Your task to perform on an android device: open app "Spotify" (install if not already installed) and enter user name: "infallible@icloud.com" and password: "implored" Image 0: 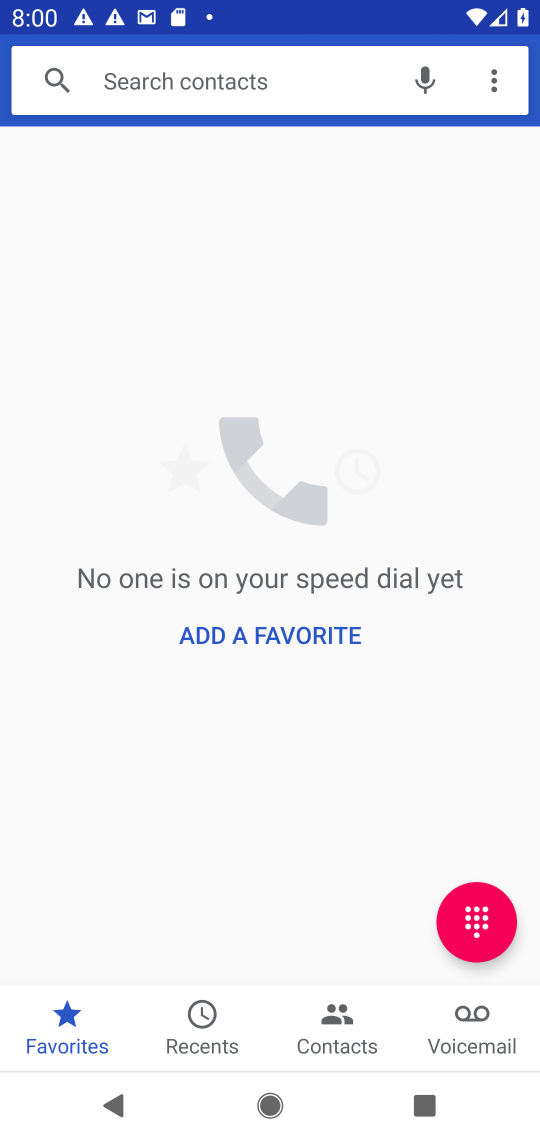
Step 0: press home button
Your task to perform on an android device: open app "Spotify" (install if not already installed) and enter user name: "infallible@icloud.com" and password: "implored" Image 1: 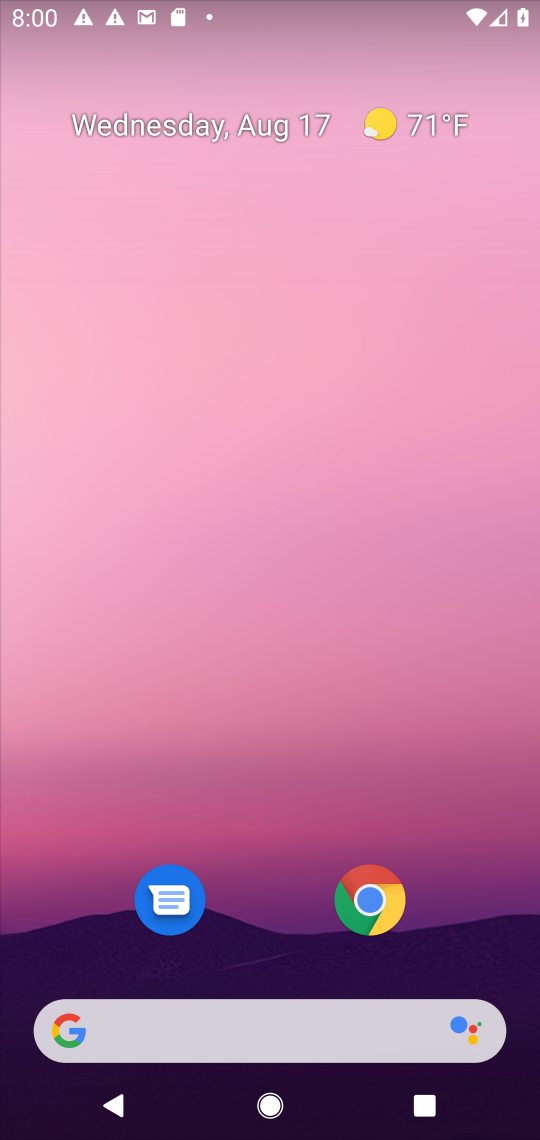
Step 1: drag from (274, 890) to (486, 0)
Your task to perform on an android device: open app "Spotify" (install if not already installed) and enter user name: "infallible@icloud.com" and password: "implored" Image 2: 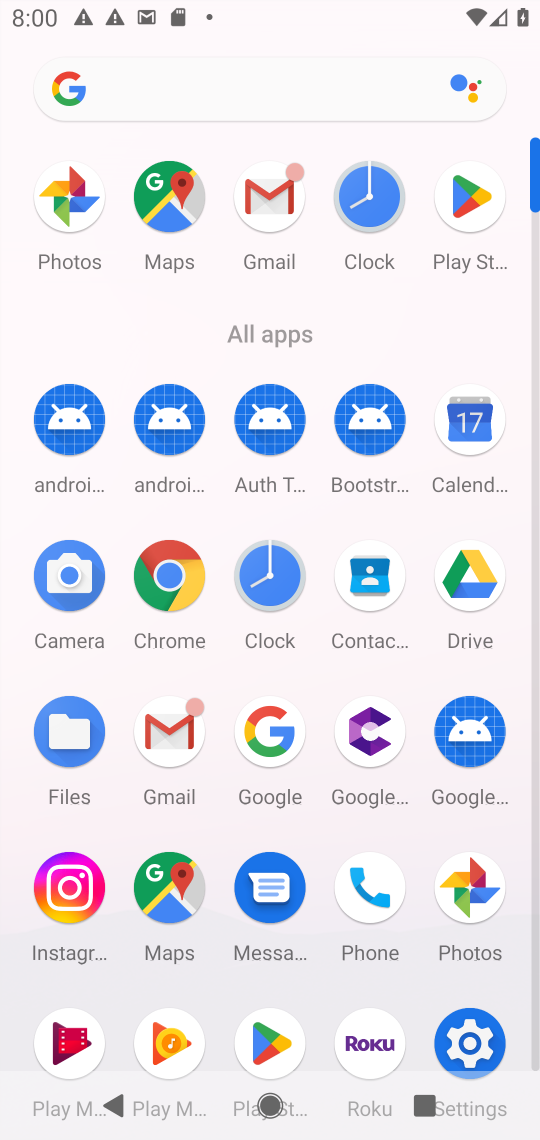
Step 2: click (469, 269)
Your task to perform on an android device: open app "Spotify" (install if not already installed) and enter user name: "infallible@icloud.com" and password: "implored" Image 3: 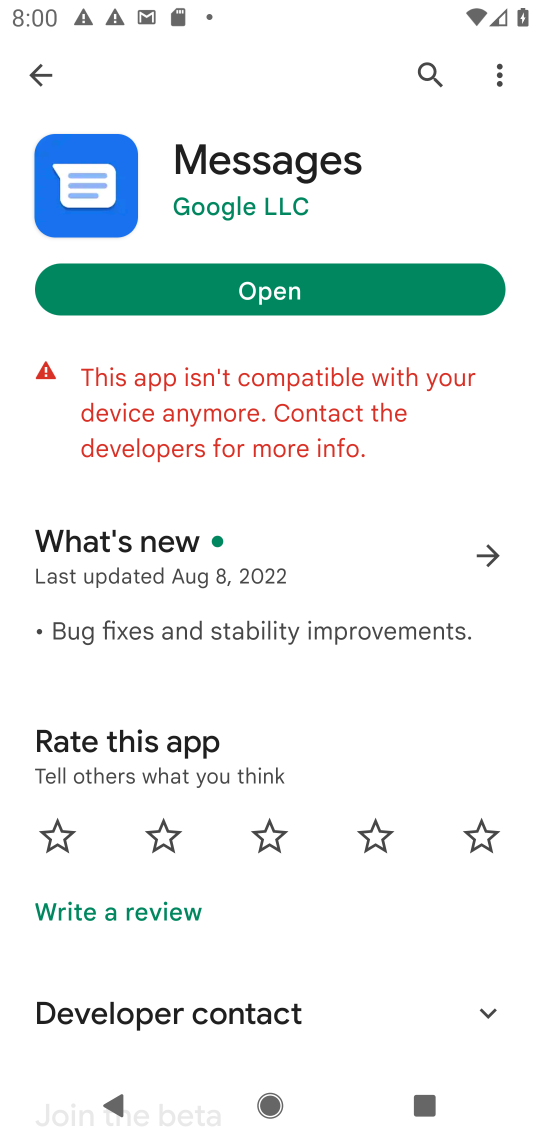
Step 3: click (57, 62)
Your task to perform on an android device: open app "Spotify" (install if not already installed) and enter user name: "infallible@icloud.com" and password: "implored" Image 4: 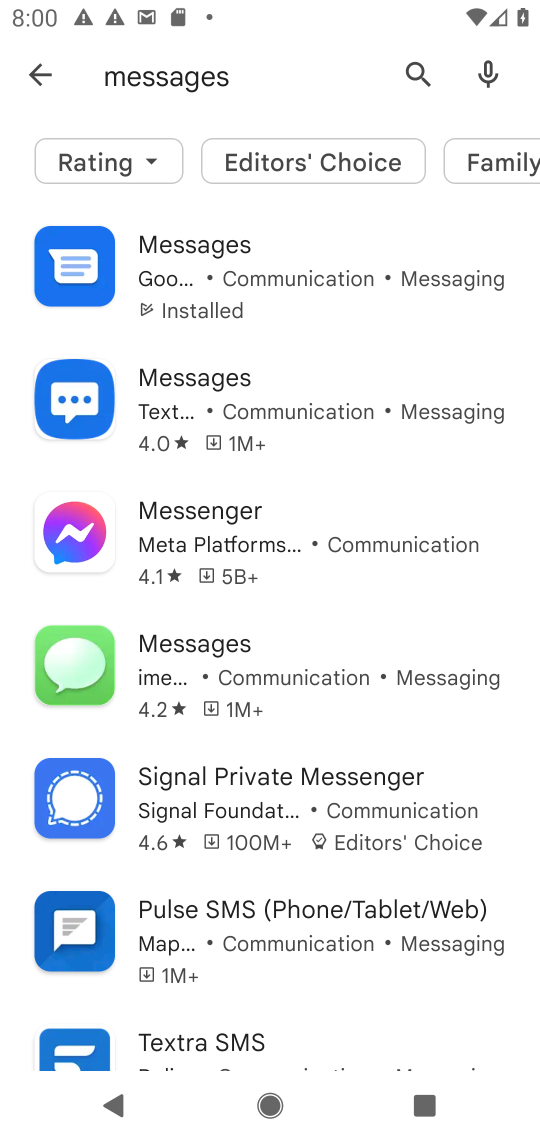
Step 4: click (47, 66)
Your task to perform on an android device: open app "Spotify" (install if not already installed) and enter user name: "infallible@icloud.com" and password: "implored" Image 5: 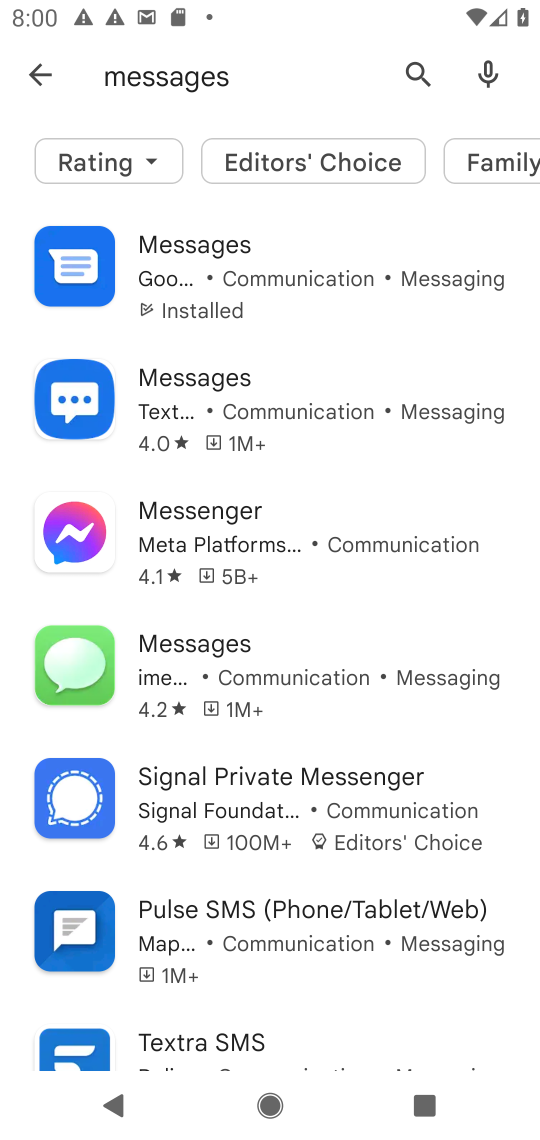
Step 5: click (38, 92)
Your task to perform on an android device: open app "Spotify" (install if not already installed) and enter user name: "infallible@icloud.com" and password: "implored" Image 6: 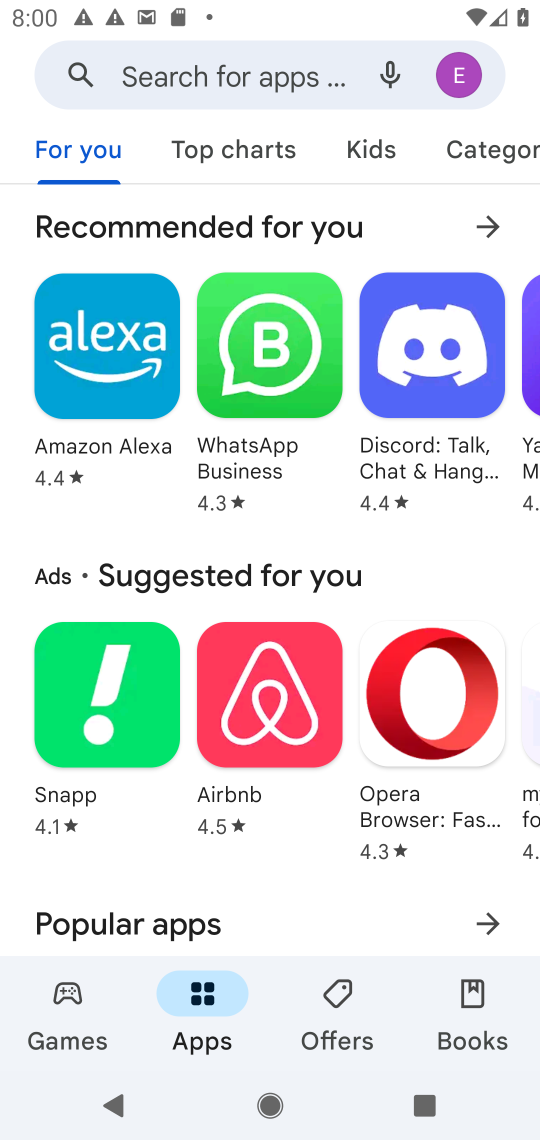
Step 6: click (171, 101)
Your task to perform on an android device: open app "Spotify" (install if not already installed) and enter user name: "infallible@icloud.com" and password: "implored" Image 7: 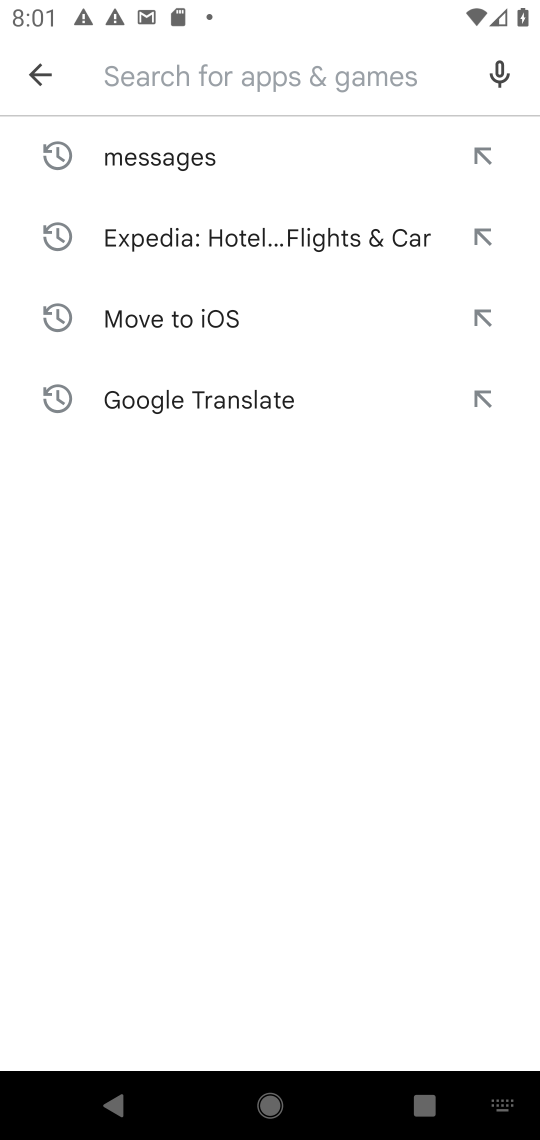
Step 7: type "Spotify"
Your task to perform on an android device: open app "Spotify" (install if not already installed) and enter user name: "infallible@icloud.com" and password: "implored" Image 8: 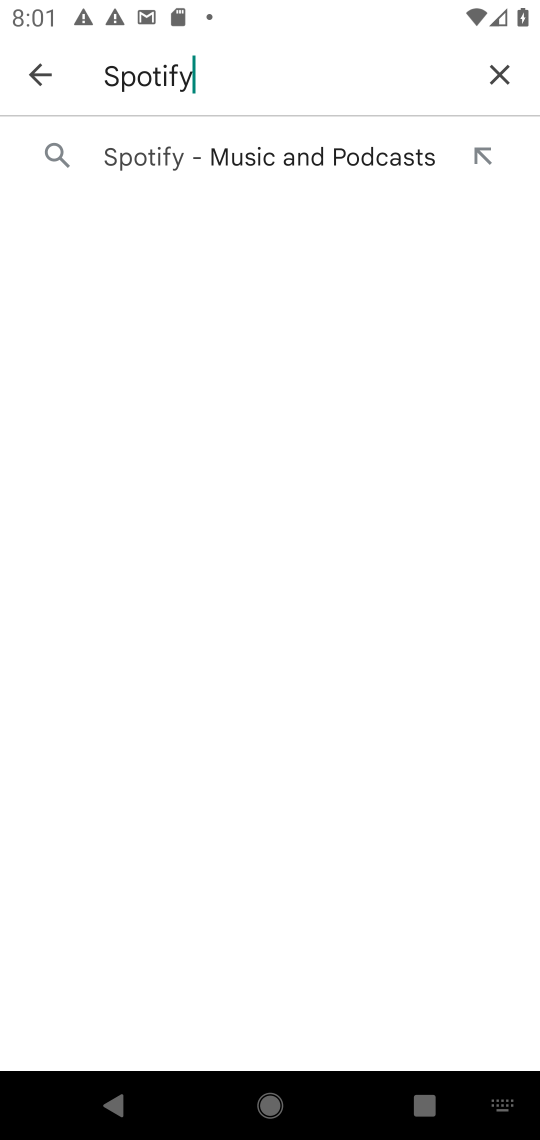
Step 8: click (284, 164)
Your task to perform on an android device: open app "Spotify" (install if not already installed) and enter user name: "infallible@icloud.com" and password: "implored" Image 9: 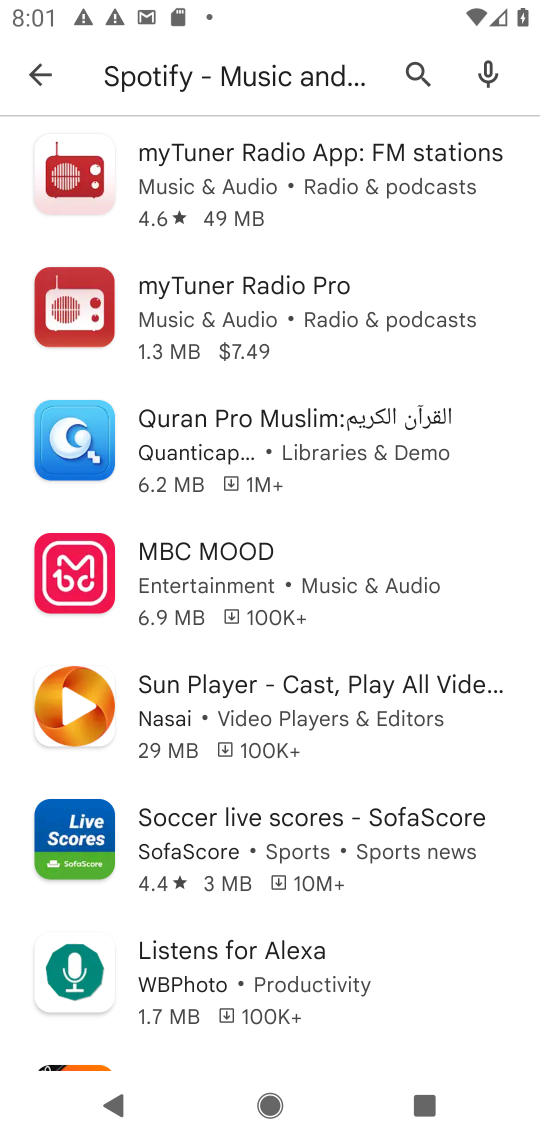
Step 9: task complete